Your task to perform on an android device: Go to display settings Image 0: 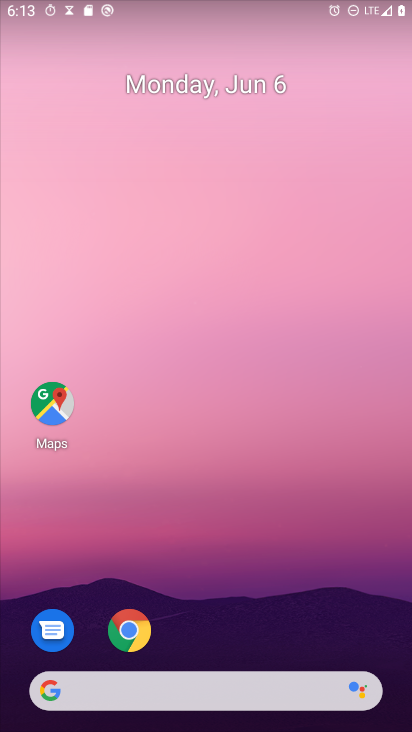
Step 0: drag from (297, 532) to (174, 17)
Your task to perform on an android device: Go to display settings Image 1: 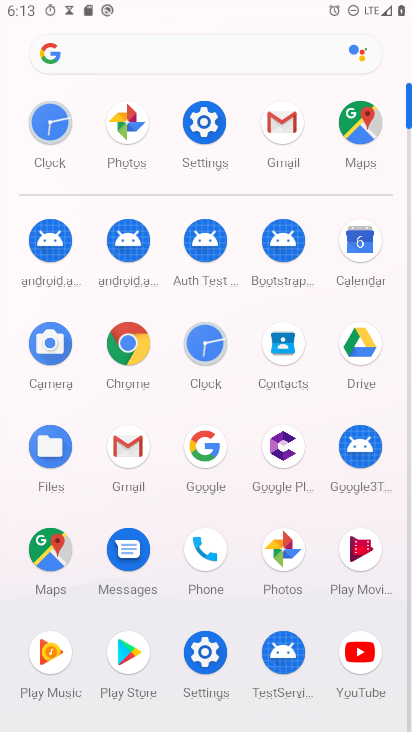
Step 1: click (199, 131)
Your task to perform on an android device: Go to display settings Image 2: 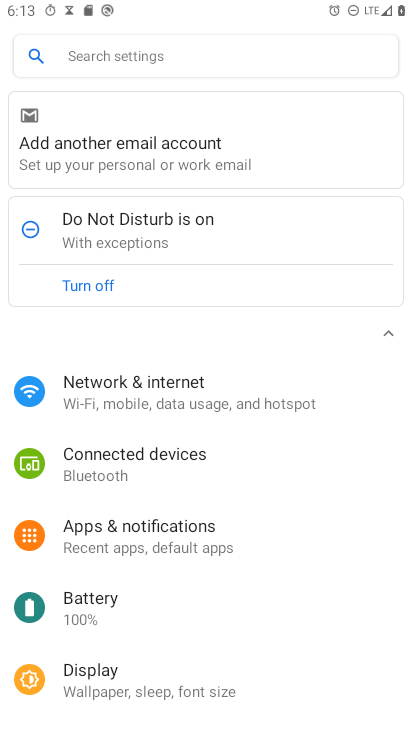
Step 2: click (156, 682)
Your task to perform on an android device: Go to display settings Image 3: 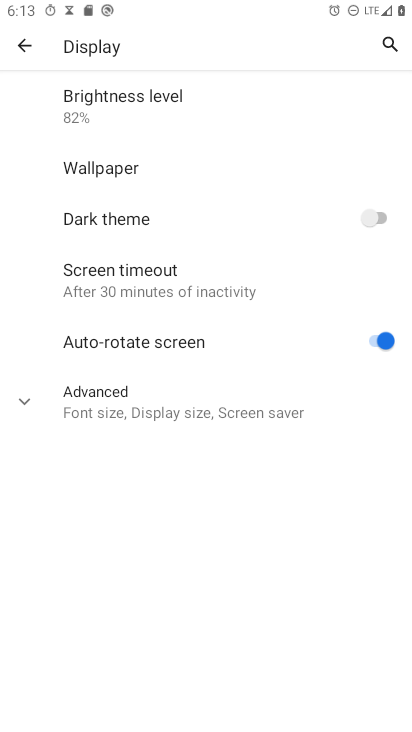
Step 3: task complete